Your task to perform on an android device: Open Google Chrome and open the bookmarks view Image 0: 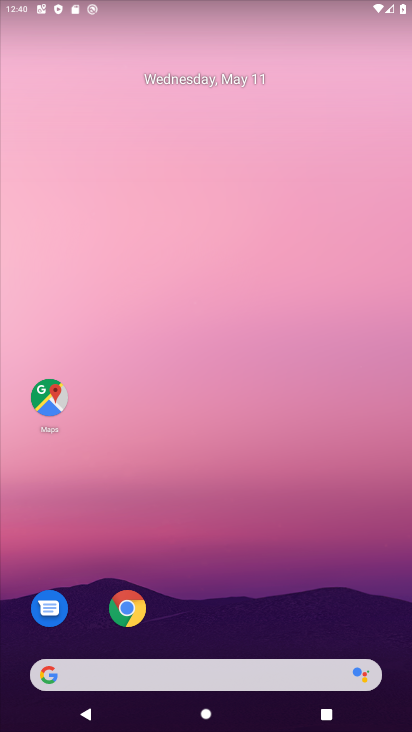
Step 0: click (122, 606)
Your task to perform on an android device: Open Google Chrome and open the bookmarks view Image 1: 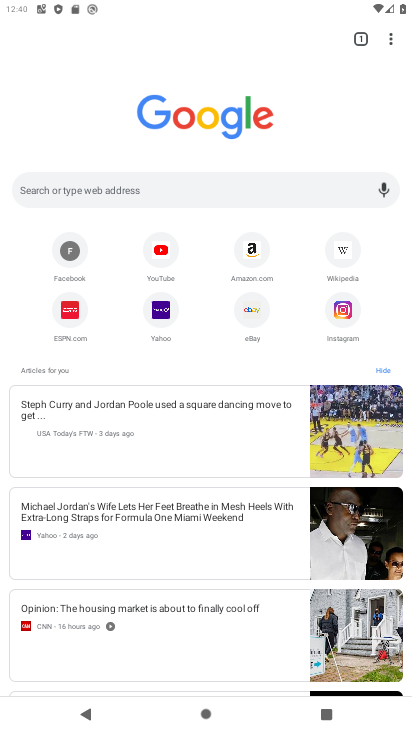
Step 1: task complete